Your task to perform on an android device: Go to network settings Image 0: 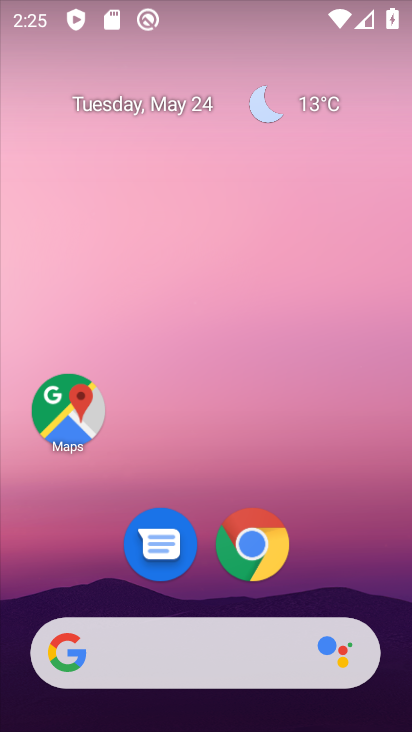
Step 0: drag from (353, 464) to (370, 35)
Your task to perform on an android device: Go to network settings Image 1: 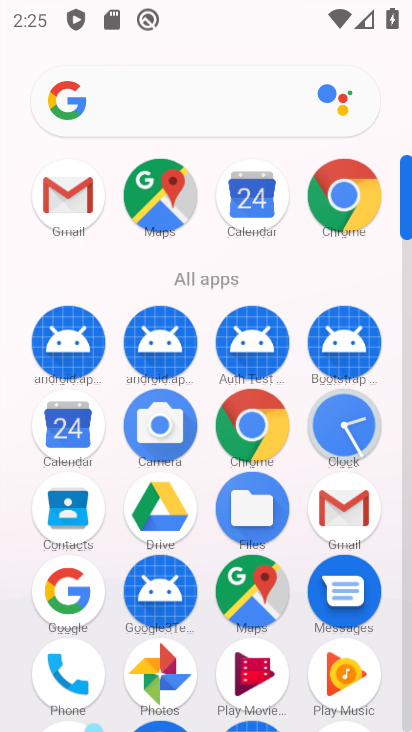
Step 1: drag from (401, 402) to (407, 118)
Your task to perform on an android device: Go to network settings Image 2: 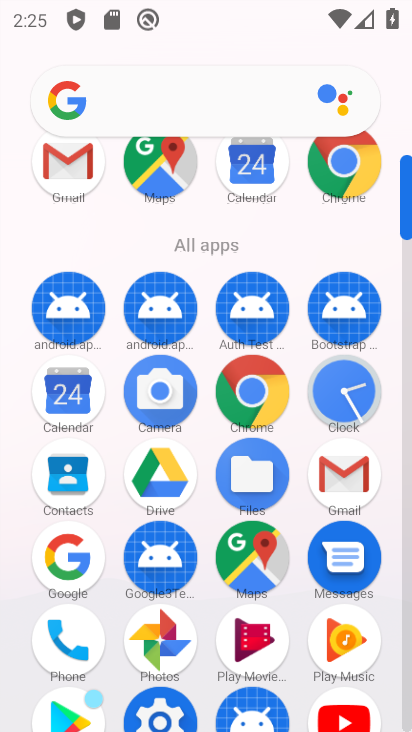
Step 2: click (156, 712)
Your task to perform on an android device: Go to network settings Image 3: 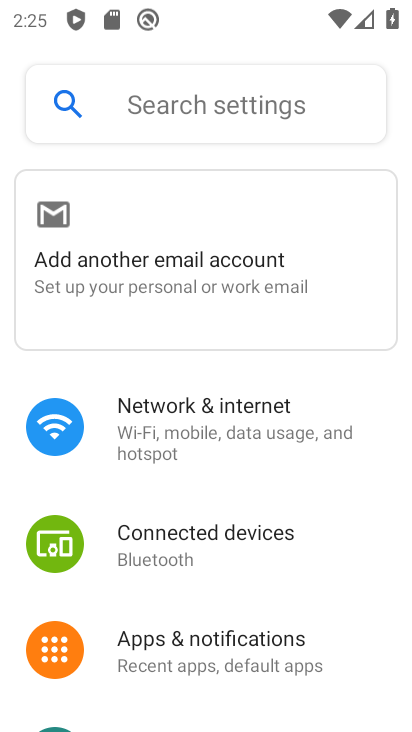
Step 3: click (222, 421)
Your task to perform on an android device: Go to network settings Image 4: 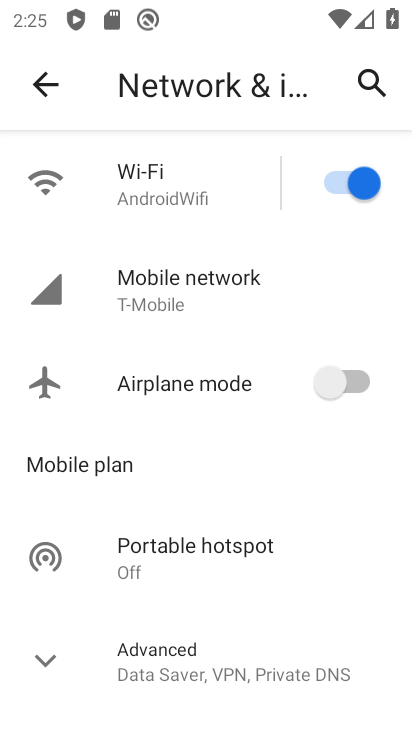
Step 4: task complete